Your task to perform on an android device: open app "DuckDuckGo Privacy Browser" (install if not already installed) and enter user name: "cleaving@outlook.com" and password: "freighters" Image 0: 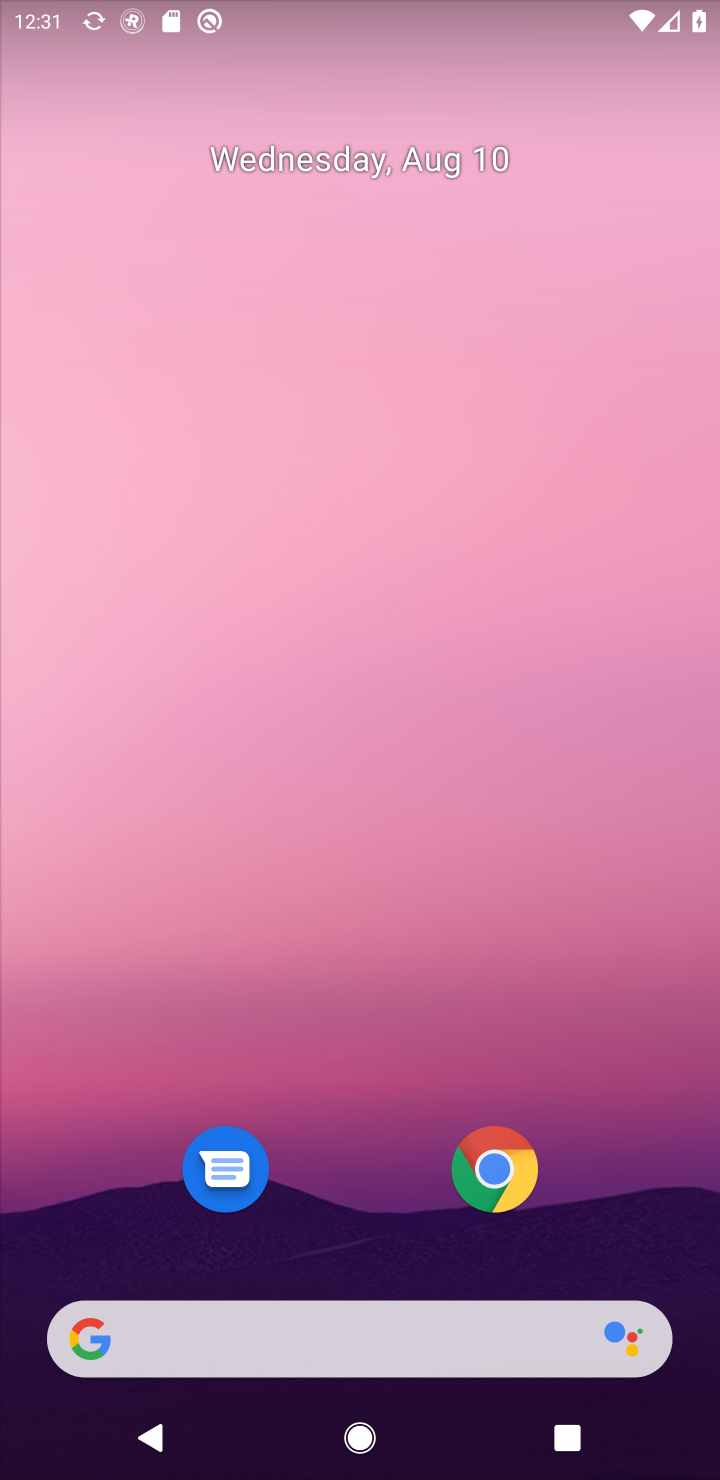
Step 0: press home button
Your task to perform on an android device: open app "DuckDuckGo Privacy Browser" (install if not already installed) and enter user name: "cleaving@outlook.com" and password: "freighters" Image 1: 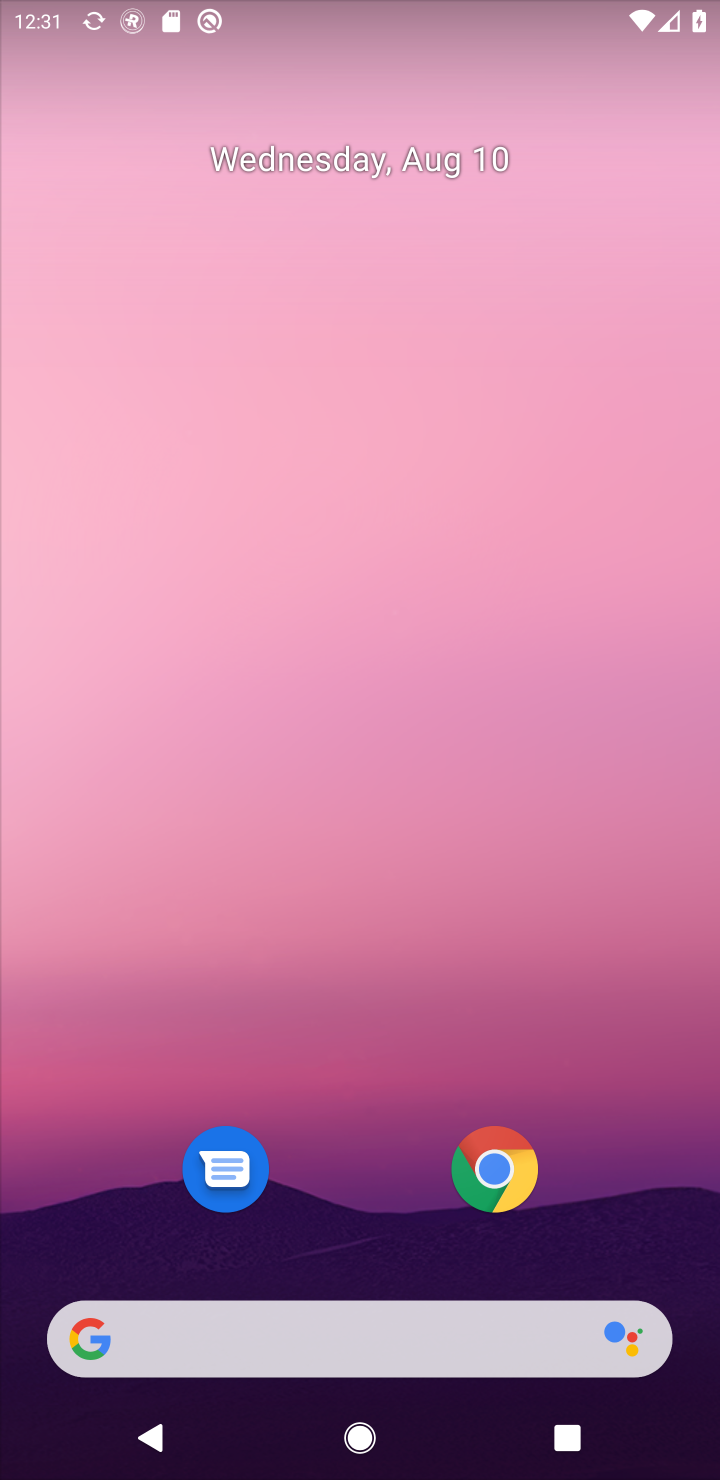
Step 1: drag from (614, 1245) to (606, 95)
Your task to perform on an android device: open app "DuckDuckGo Privacy Browser" (install if not already installed) and enter user name: "cleaving@outlook.com" and password: "freighters" Image 2: 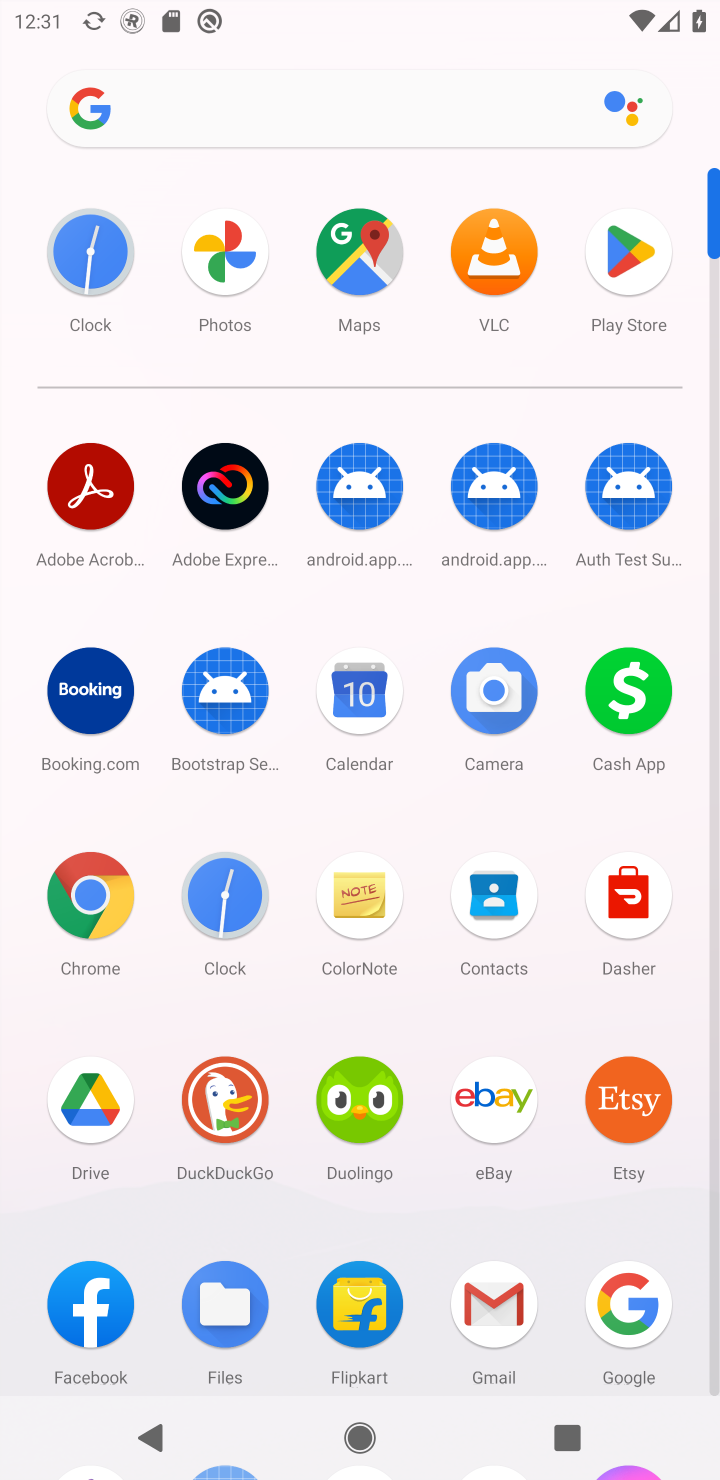
Step 2: click (633, 252)
Your task to perform on an android device: open app "DuckDuckGo Privacy Browser" (install if not already installed) and enter user name: "cleaving@outlook.com" and password: "freighters" Image 3: 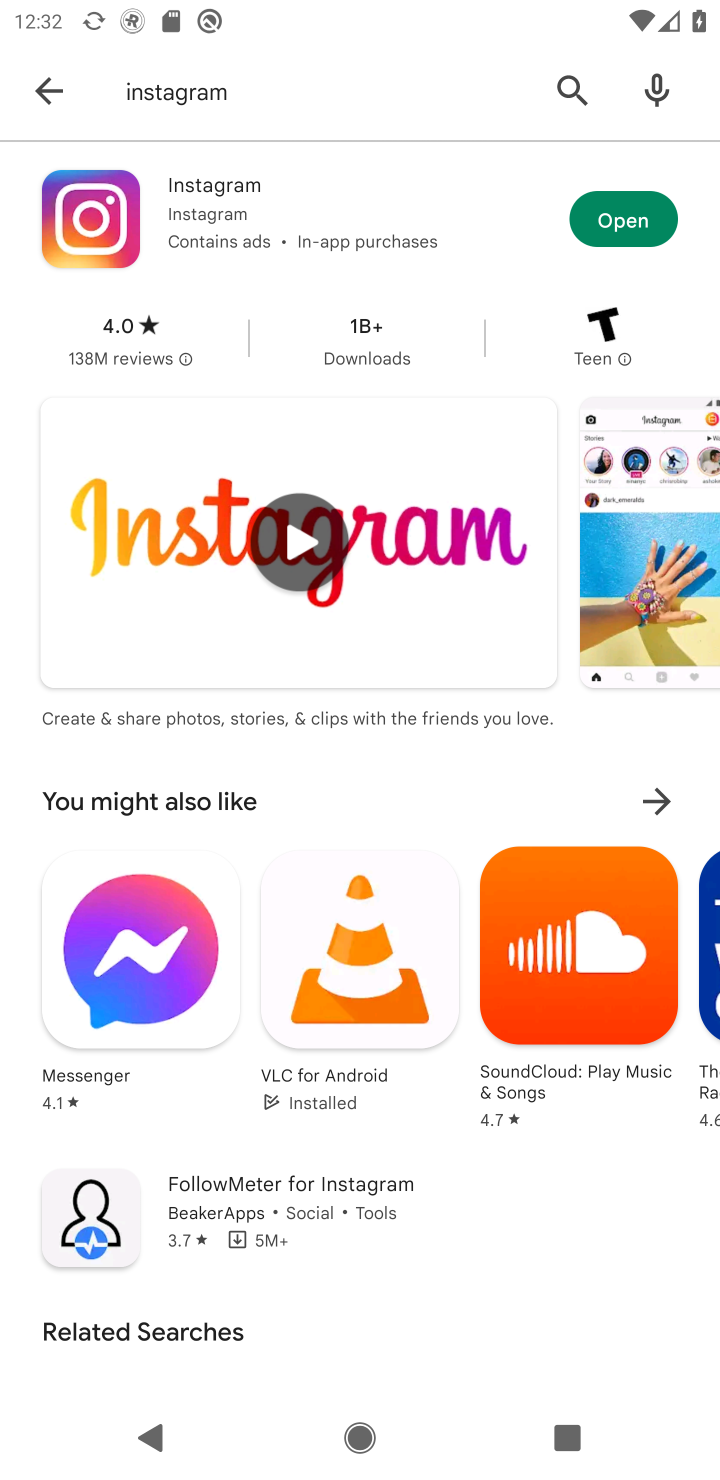
Step 3: click (574, 92)
Your task to perform on an android device: open app "DuckDuckGo Privacy Browser" (install if not already installed) and enter user name: "cleaving@outlook.com" and password: "freighters" Image 4: 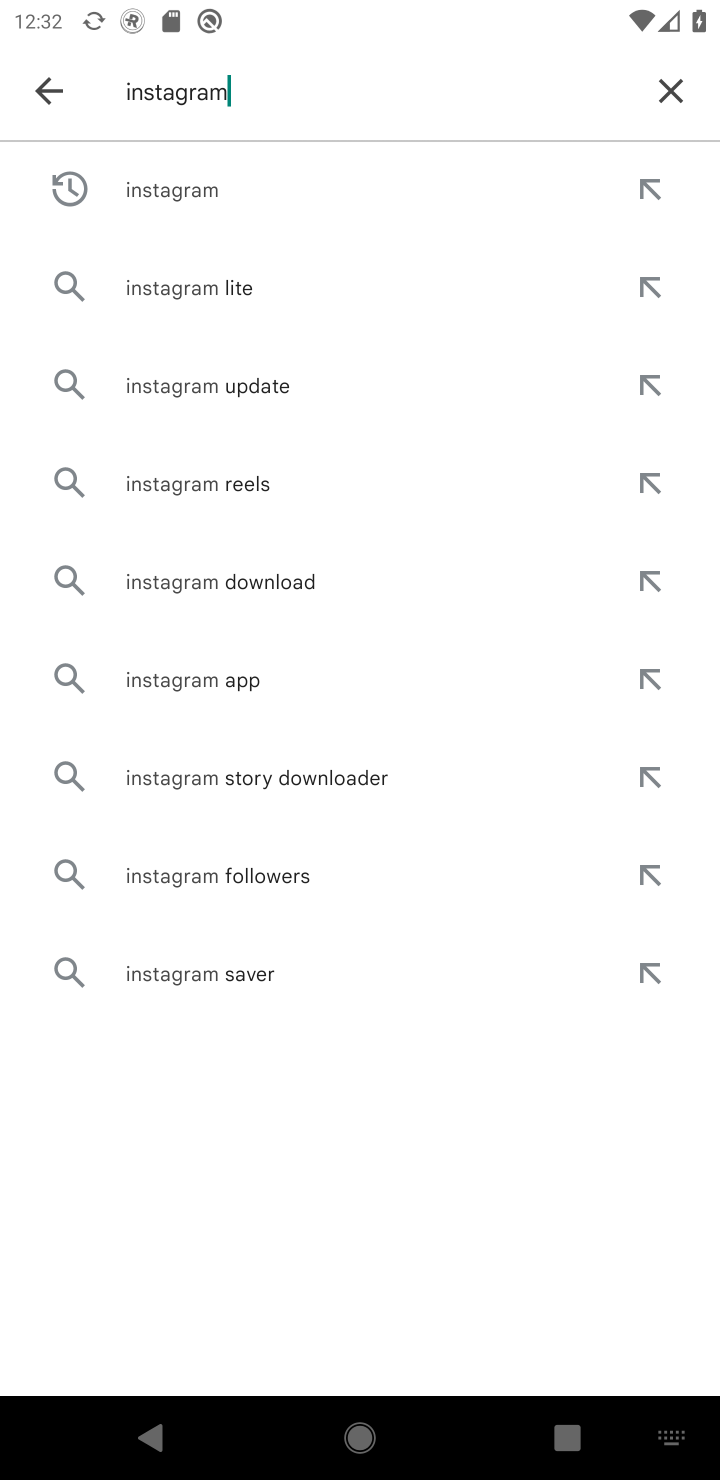
Step 4: click (660, 84)
Your task to perform on an android device: open app "DuckDuckGo Privacy Browser" (install if not already installed) and enter user name: "cleaving@outlook.com" and password: "freighters" Image 5: 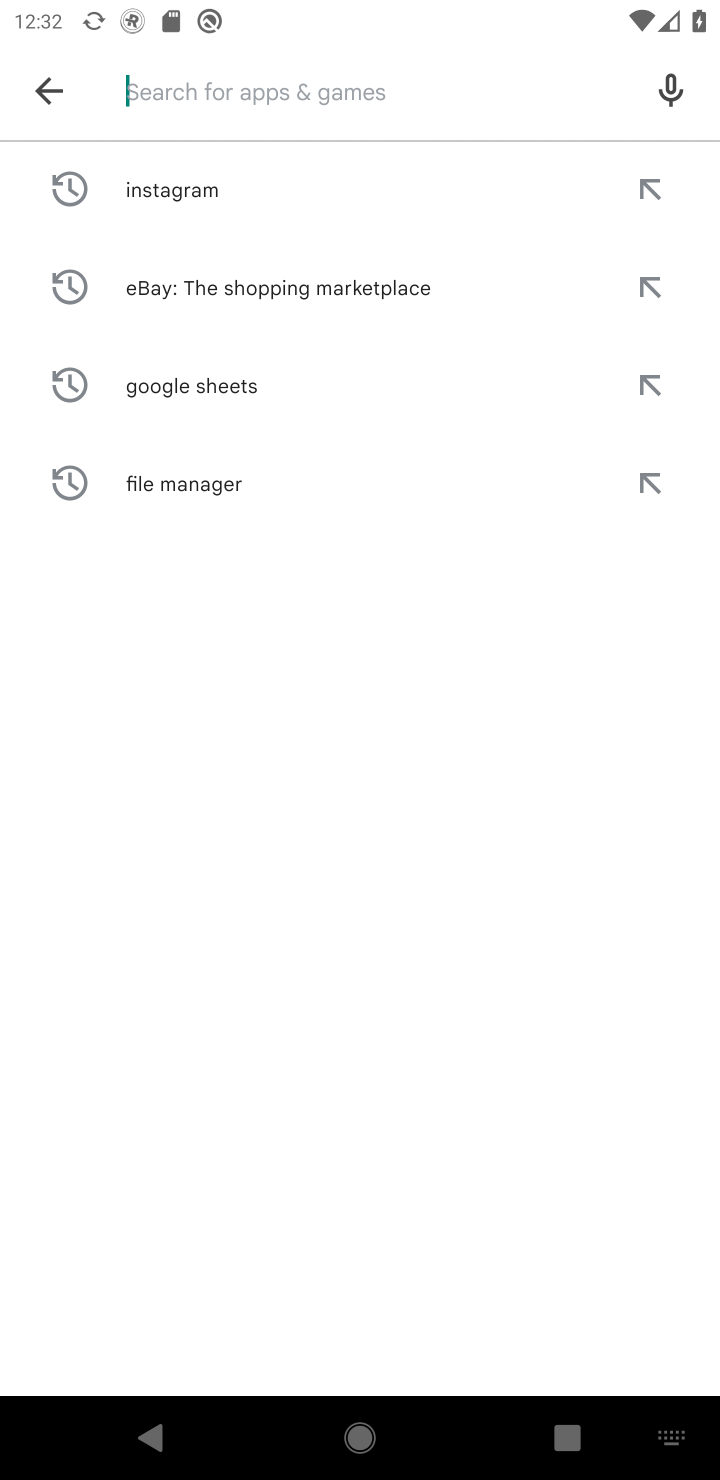
Step 5: type "DuckDuckGo Privacy Browser"
Your task to perform on an android device: open app "DuckDuckGo Privacy Browser" (install if not already installed) and enter user name: "cleaving@outlook.com" and password: "freighters" Image 6: 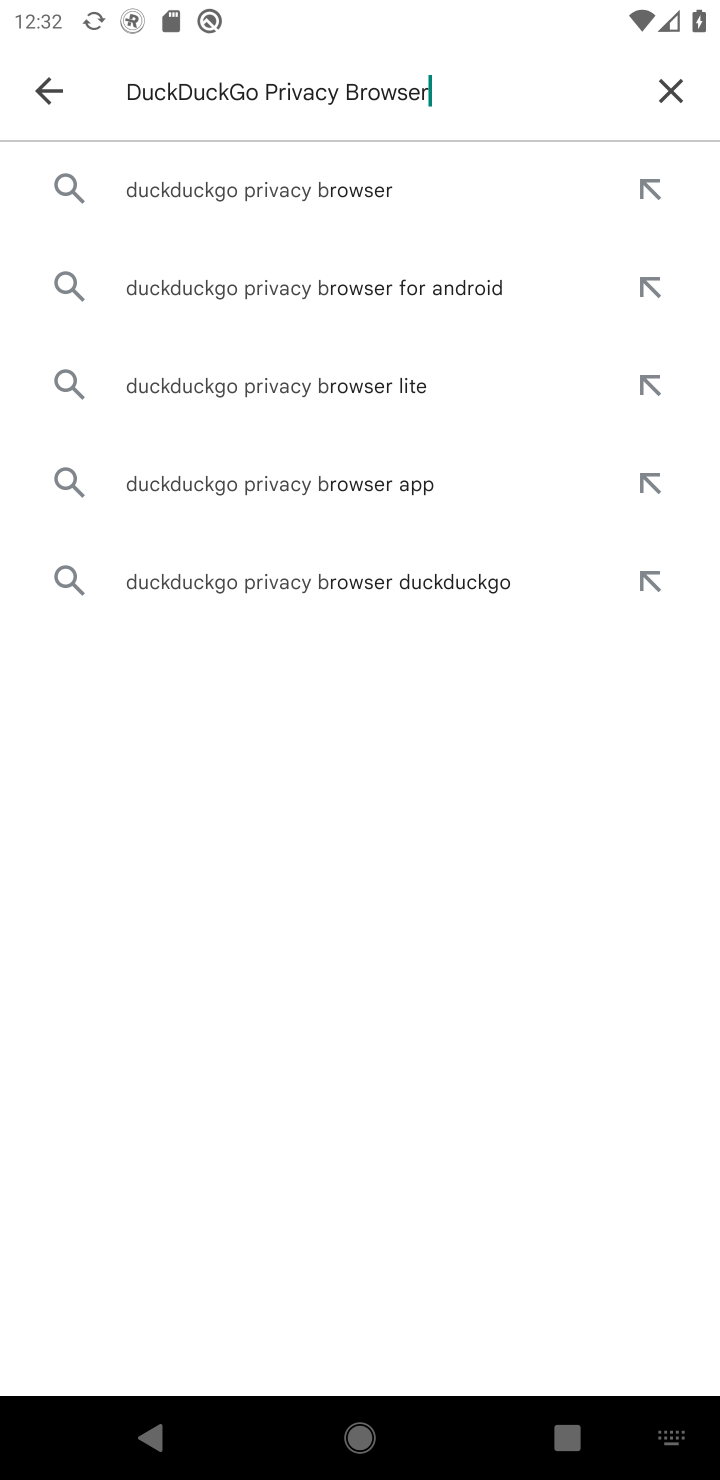
Step 6: press enter
Your task to perform on an android device: open app "DuckDuckGo Privacy Browser" (install if not already installed) and enter user name: "cleaving@outlook.com" and password: "freighters" Image 7: 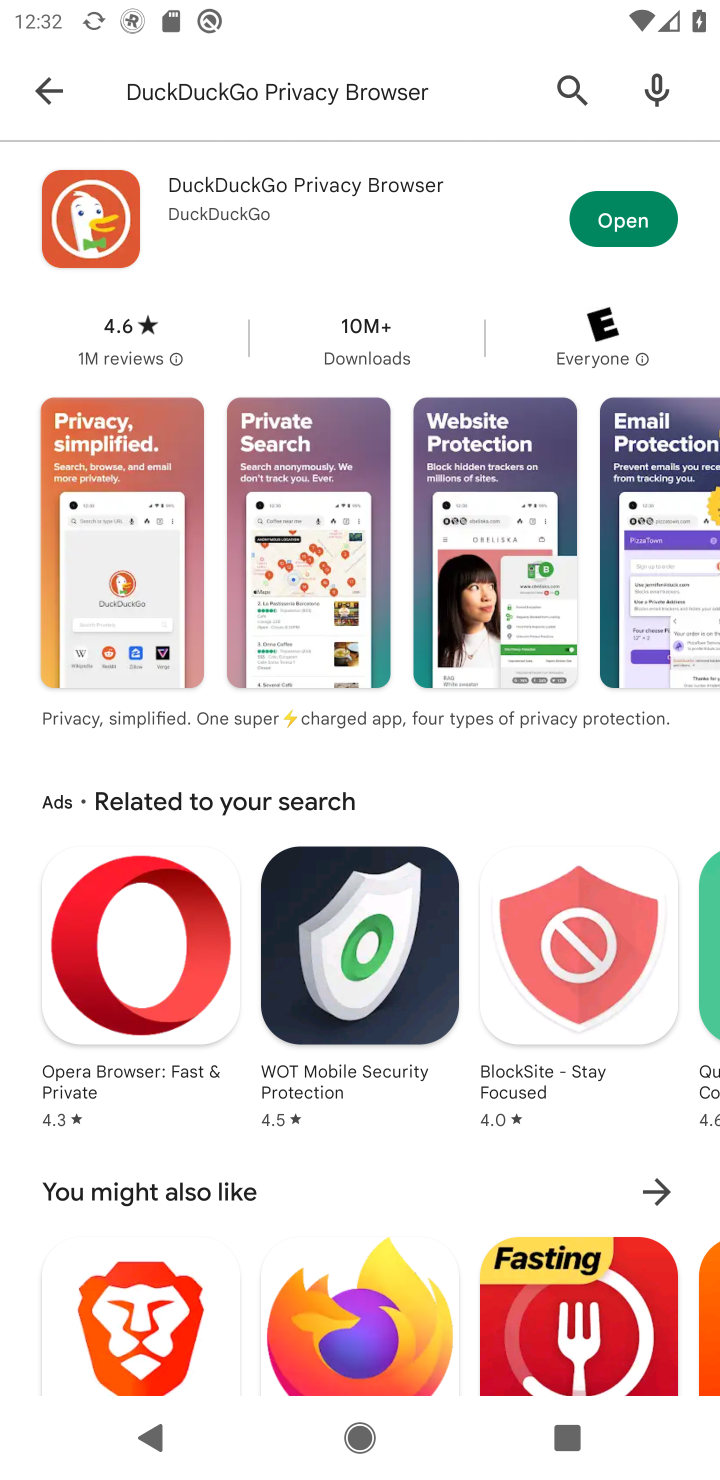
Step 7: click (640, 222)
Your task to perform on an android device: open app "DuckDuckGo Privacy Browser" (install if not already installed) and enter user name: "cleaving@outlook.com" and password: "freighters" Image 8: 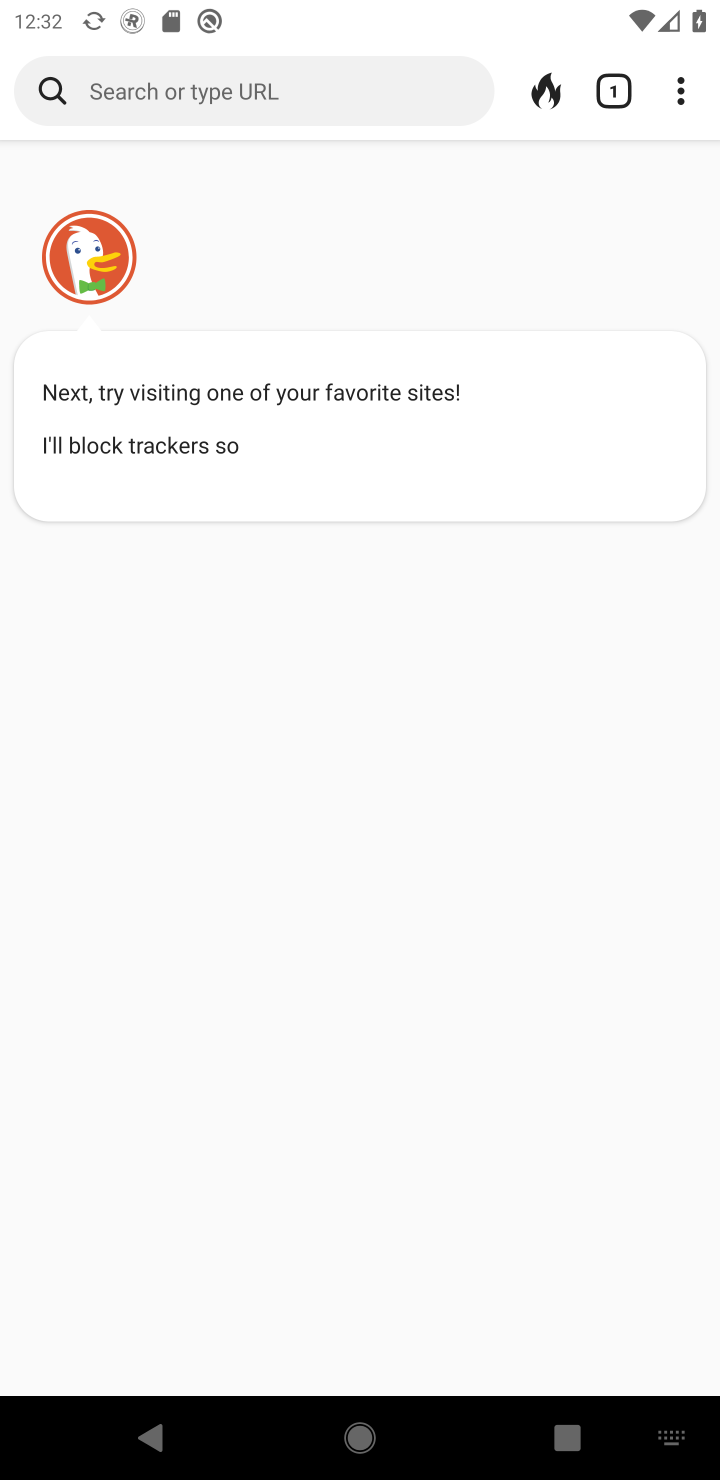
Step 8: click (683, 91)
Your task to perform on an android device: open app "DuckDuckGo Privacy Browser" (install if not already installed) and enter user name: "cleaving@outlook.com" and password: "freighters" Image 9: 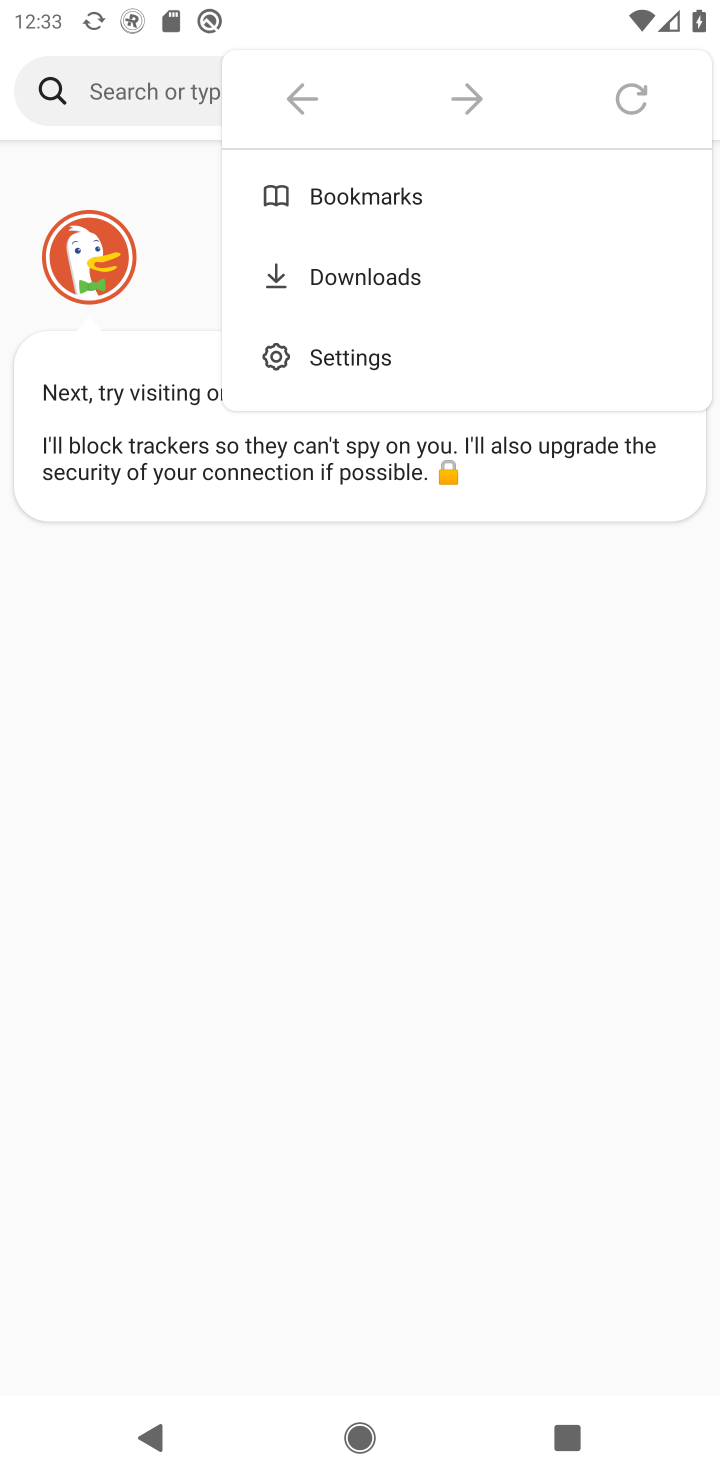
Step 9: task complete